Your task to perform on an android device: What's the weather today? Image 0: 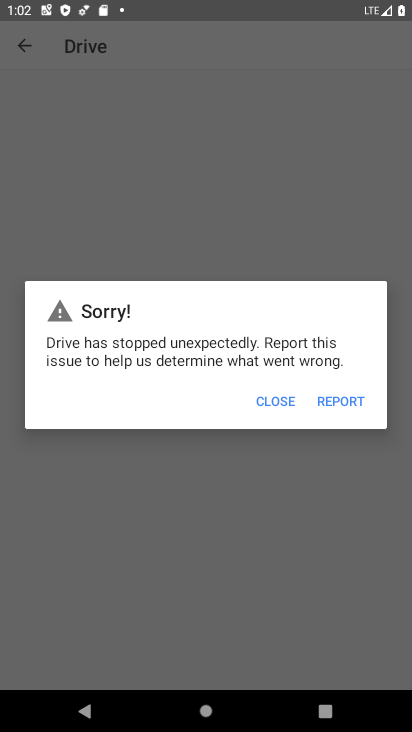
Step 0: press home button
Your task to perform on an android device: What's the weather today? Image 1: 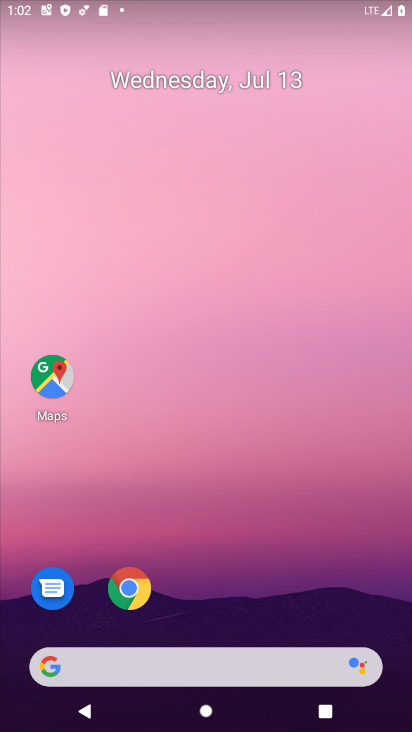
Step 1: drag from (393, 688) to (270, 24)
Your task to perform on an android device: What's the weather today? Image 2: 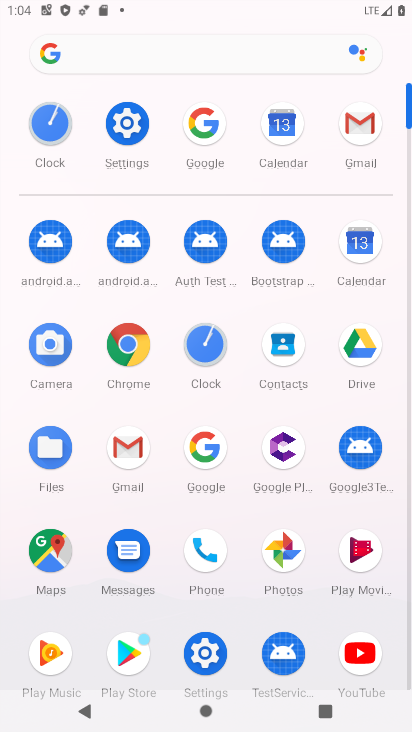
Step 2: click (216, 451)
Your task to perform on an android device: What's the weather today? Image 3: 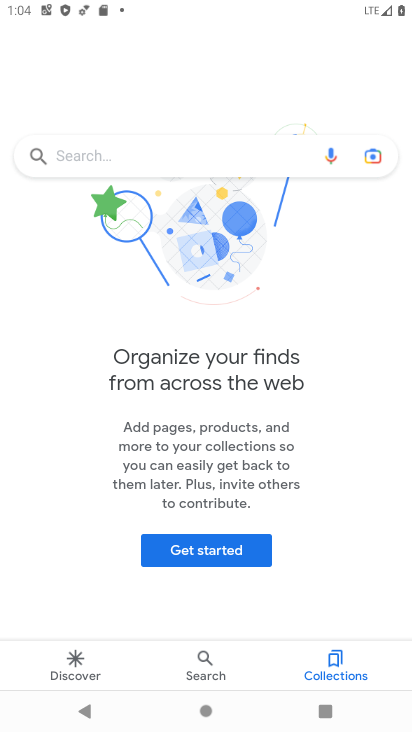
Step 3: click (342, 668)
Your task to perform on an android device: What's the weather today? Image 4: 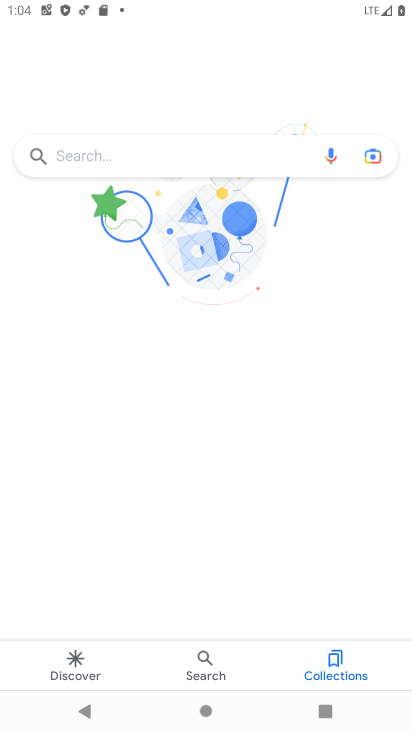
Step 4: press back button
Your task to perform on an android device: What's the weather today? Image 5: 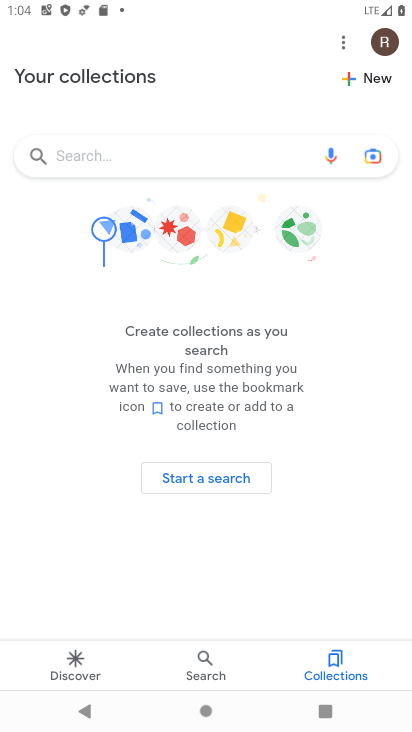
Step 5: press back button
Your task to perform on an android device: What's the weather today? Image 6: 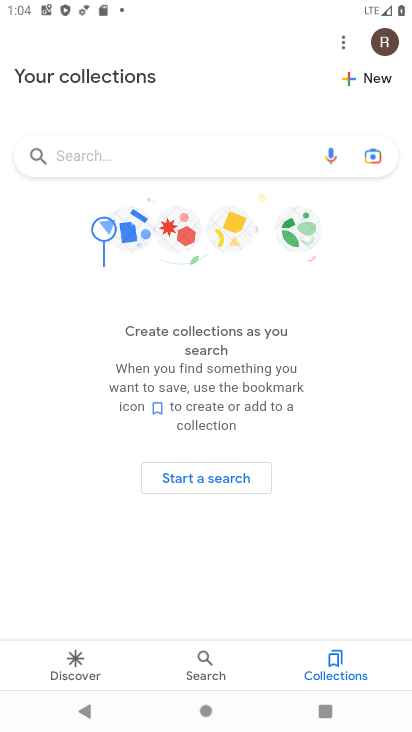
Step 6: press back button
Your task to perform on an android device: What's the weather today? Image 7: 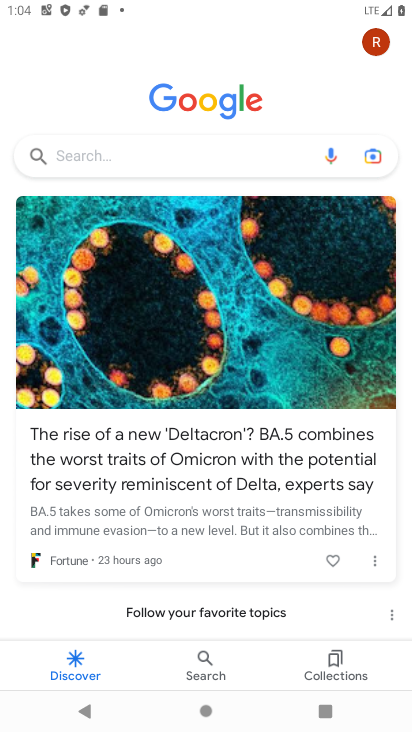
Step 7: click (72, 161)
Your task to perform on an android device: What's the weather today? Image 8: 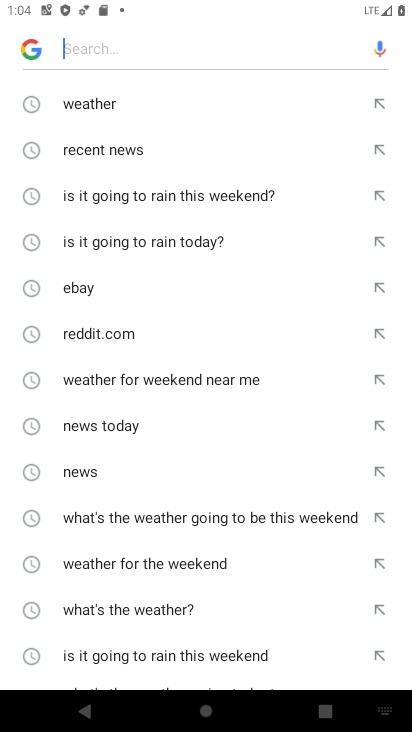
Step 8: click (106, 97)
Your task to perform on an android device: What's the weather today? Image 9: 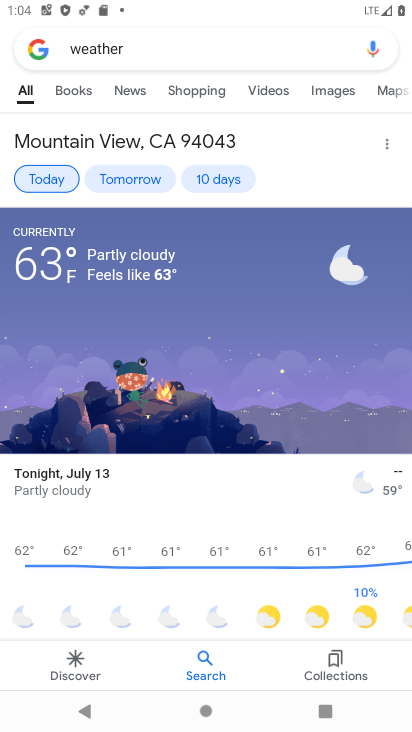
Step 9: task complete